Your task to perform on an android device: Show me productivity apps on the Play Store Image 0: 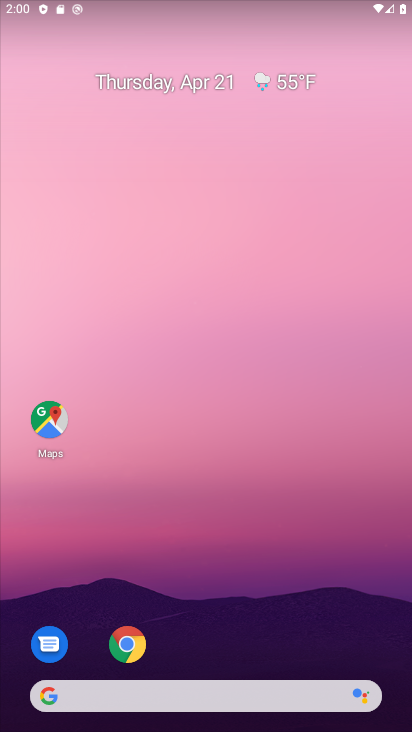
Step 0: drag from (275, 602) to (267, 2)
Your task to perform on an android device: Show me productivity apps on the Play Store Image 1: 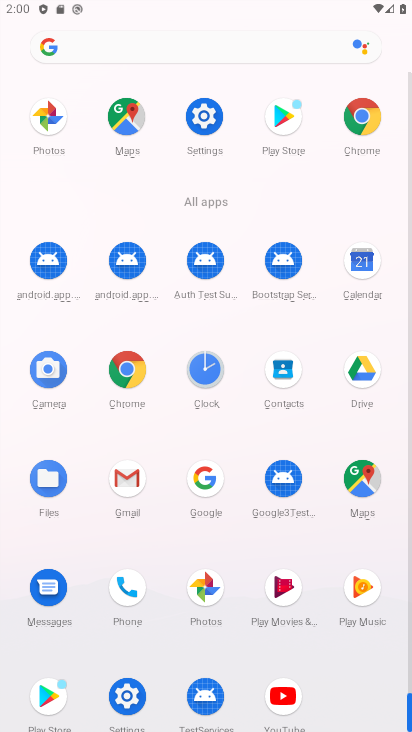
Step 1: click (286, 132)
Your task to perform on an android device: Show me productivity apps on the Play Store Image 2: 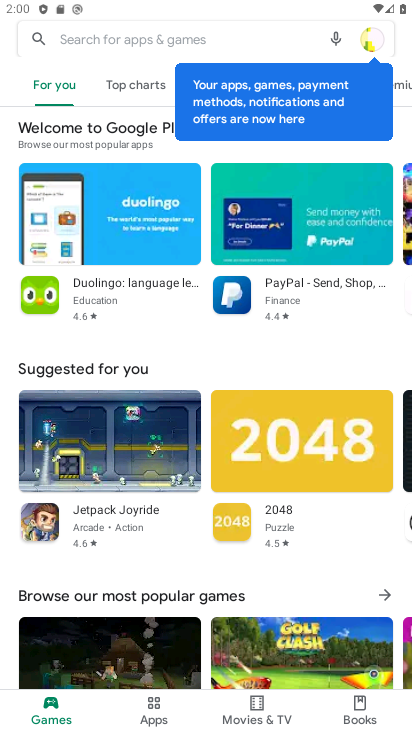
Step 2: click (164, 705)
Your task to perform on an android device: Show me productivity apps on the Play Store Image 3: 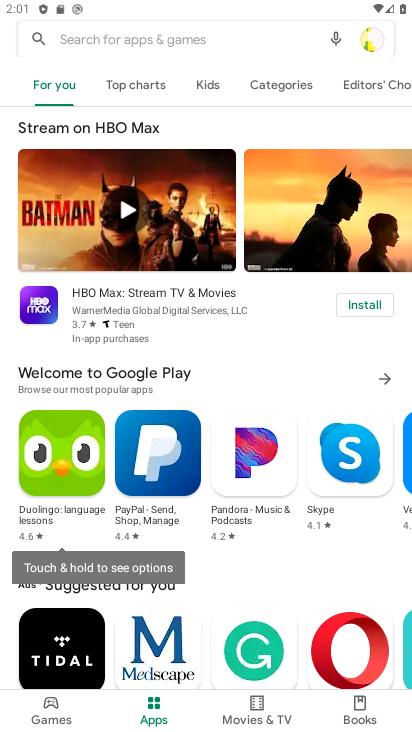
Step 3: click (269, 94)
Your task to perform on an android device: Show me productivity apps on the Play Store Image 4: 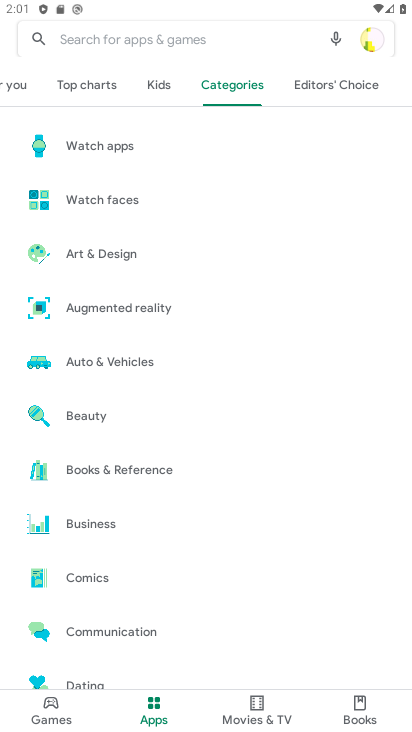
Step 4: drag from (231, 661) to (155, 101)
Your task to perform on an android device: Show me productivity apps on the Play Store Image 5: 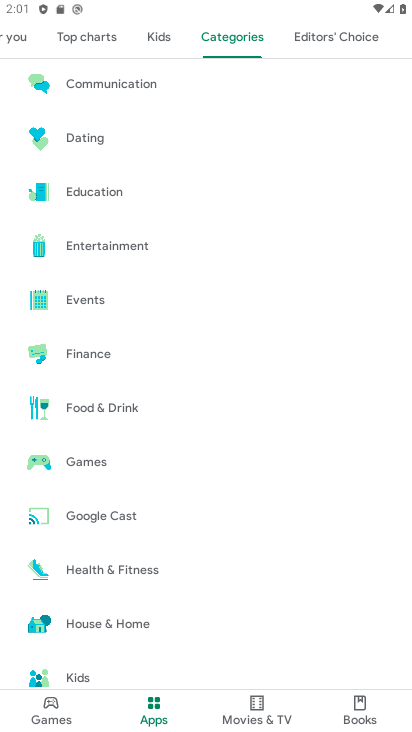
Step 5: drag from (175, 622) to (139, 65)
Your task to perform on an android device: Show me productivity apps on the Play Store Image 6: 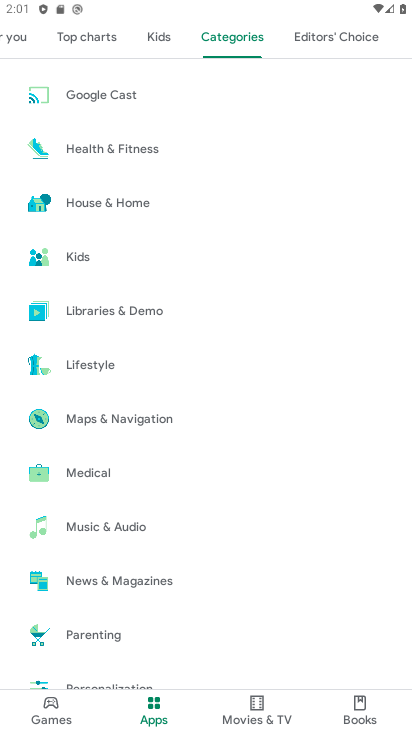
Step 6: drag from (154, 586) to (132, 28)
Your task to perform on an android device: Show me productivity apps on the Play Store Image 7: 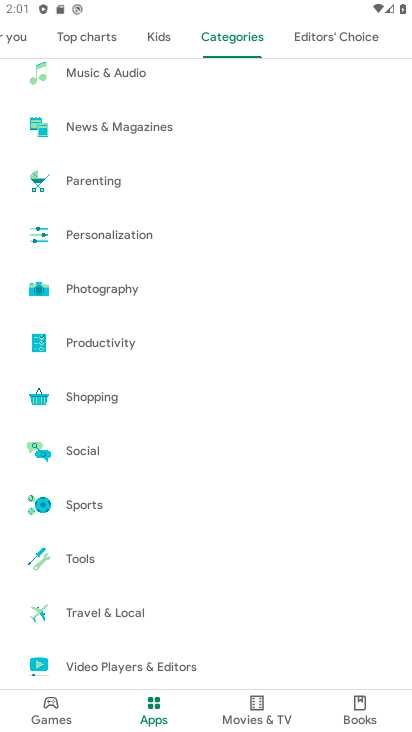
Step 7: click (133, 335)
Your task to perform on an android device: Show me productivity apps on the Play Store Image 8: 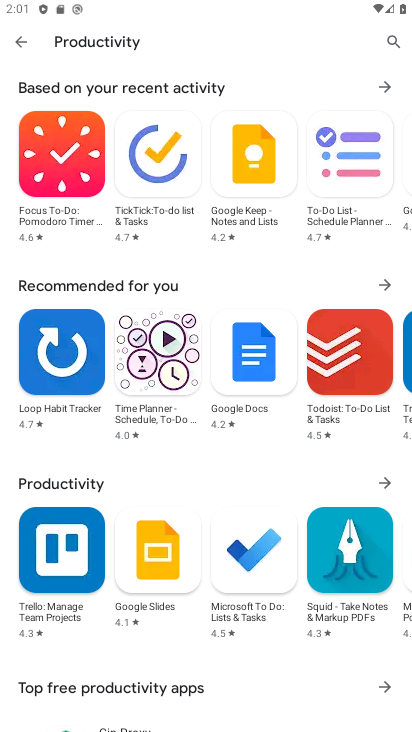
Step 8: task complete